Your task to perform on an android device: change notifications settings Image 0: 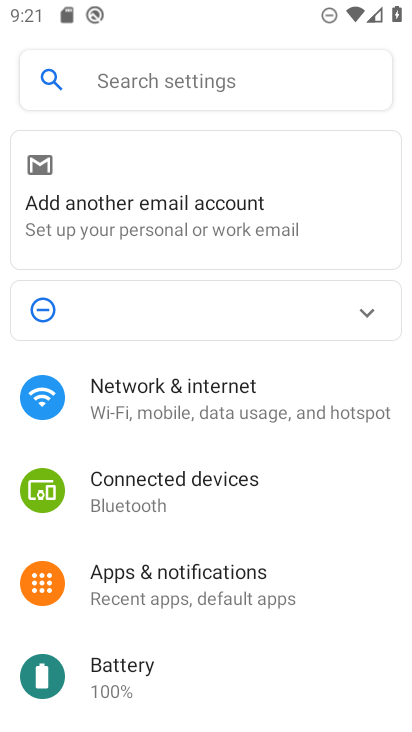
Step 0: click (118, 595)
Your task to perform on an android device: change notifications settings Image 1: 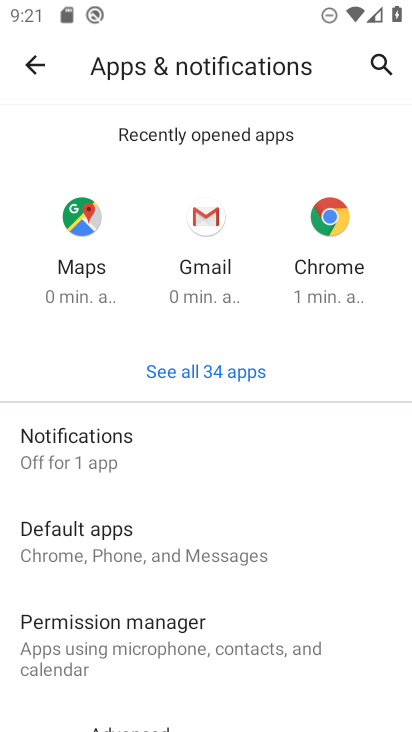
Step 1: click (76, 451)
Your task to perform on an android device: change notifications settings Image 2: 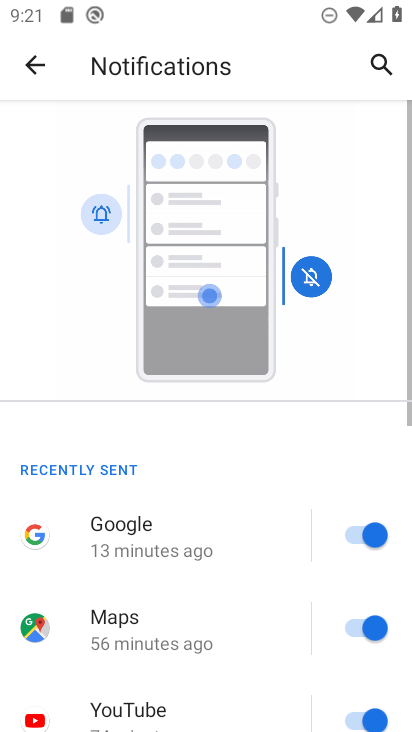
Step 2: drag from (206, 569) to (278, 42)
Your task to perform on an android device: change notifications settings Image 3: 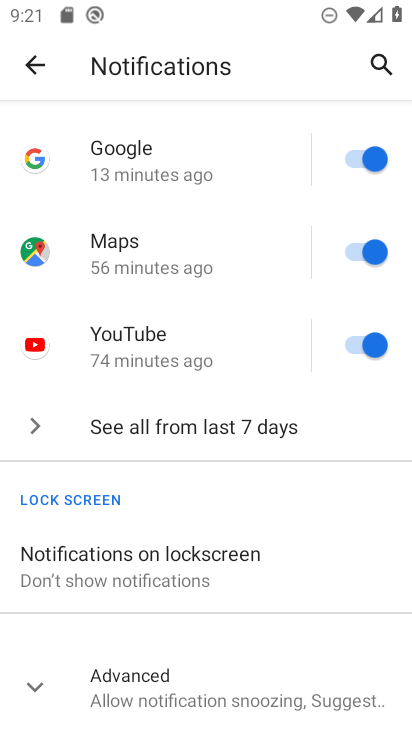
Step 3: click (169, 686)
Your task to perform on an android device: change notifications settings Image 4: 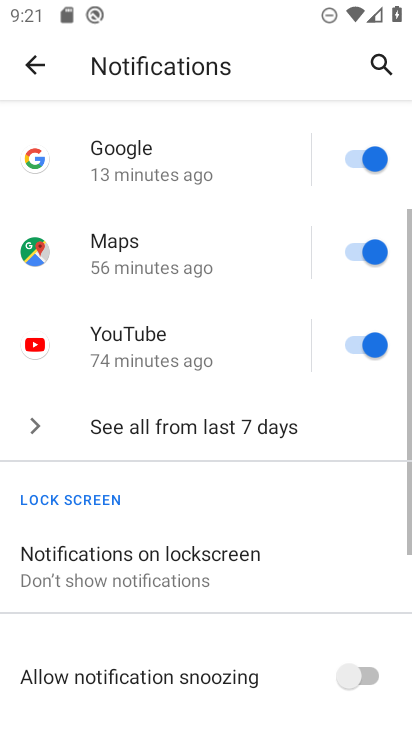
Step 4: drag from (169, 686) to (235, 285)
Your task to perform on an android device: change notifications settings Image 5: 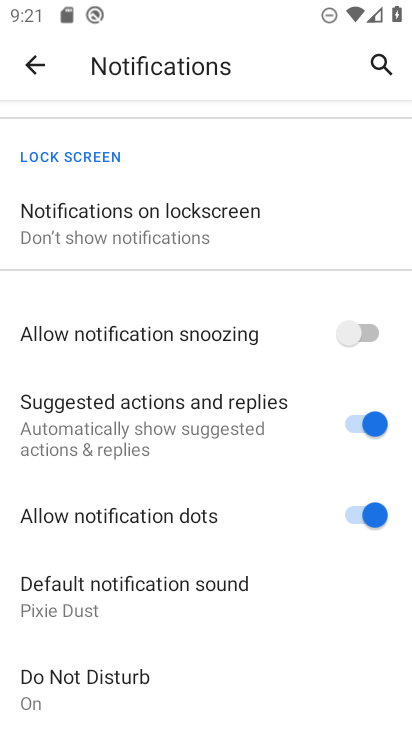
Step 5: click (352, 332)
Your task to perform on an android device: change notifications settings Image 6: 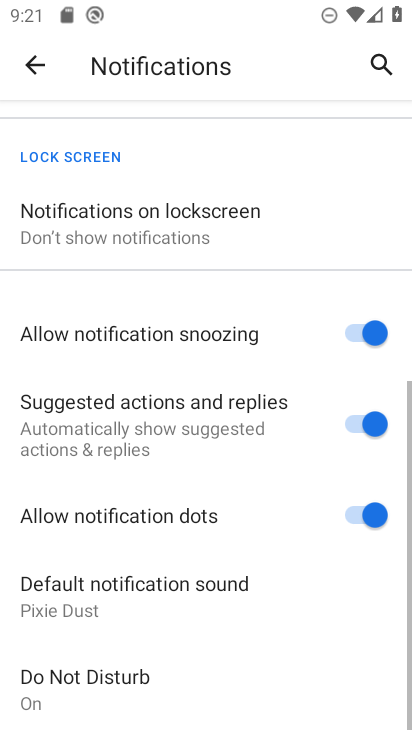
Step 6: task complete